Your task to perform on an android device: toggle javascript in the chrome app Image 0: 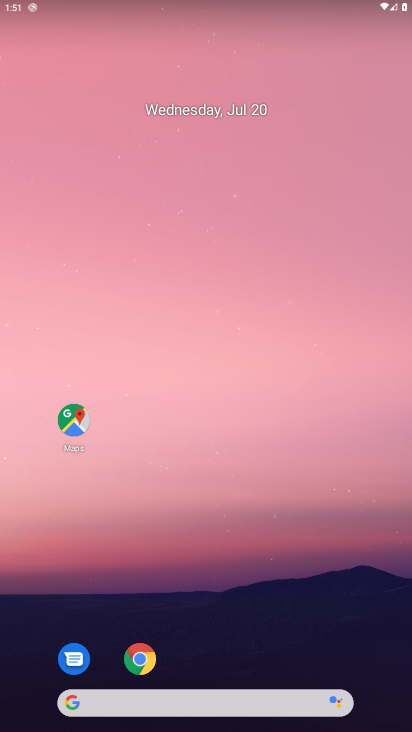
Step 0: click (147, 665)
Your task to perform on an android device: toggle javascript in the chrome app Image 1: 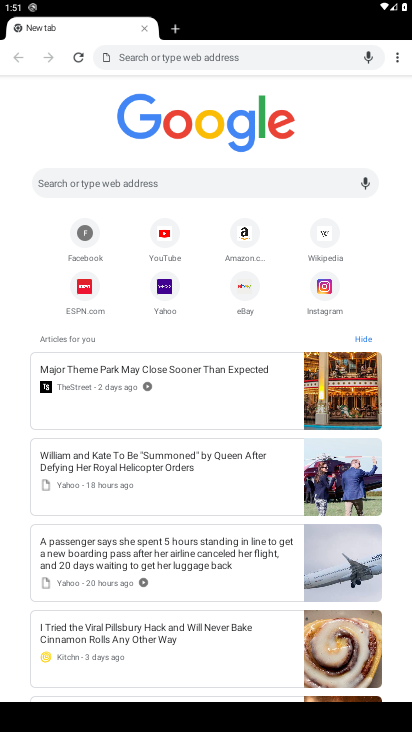
Step 1: click (399, 61)
Your task to perform on an android device: toggle javascript in the chrome app Image 2: 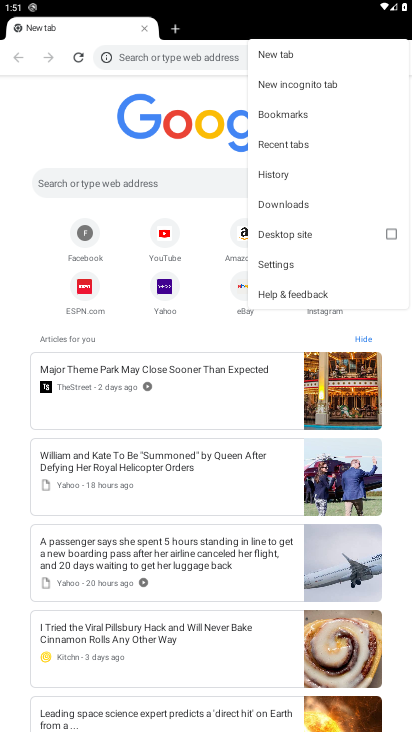
Step 2: click (274, 268)
Your task to perform on an android device: toggle javascript in the chrome app Image 3: 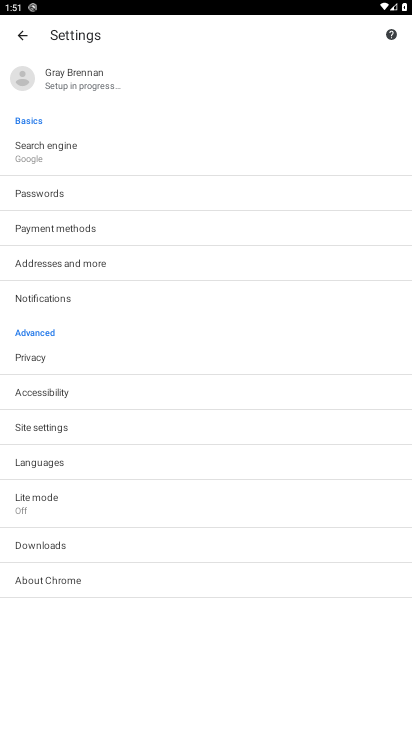
Step 3: click (42, 430)
Your task to perform on an android device: toggle javascript in the chrome app Image 4: 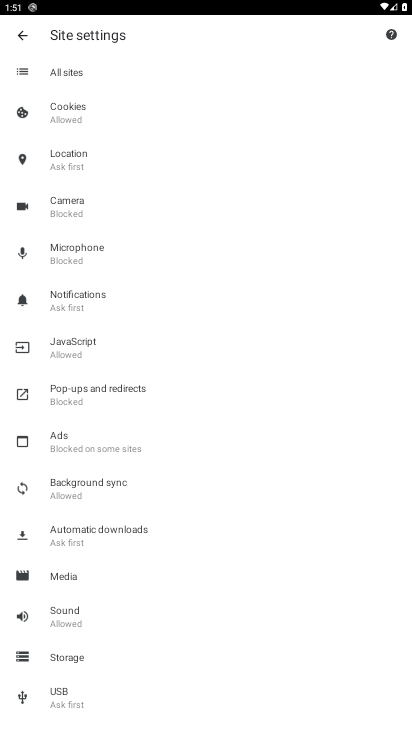
Step 4: click (77, 346)
Your task to perform on an android device: toggle javascript in the chrome app Image 5: 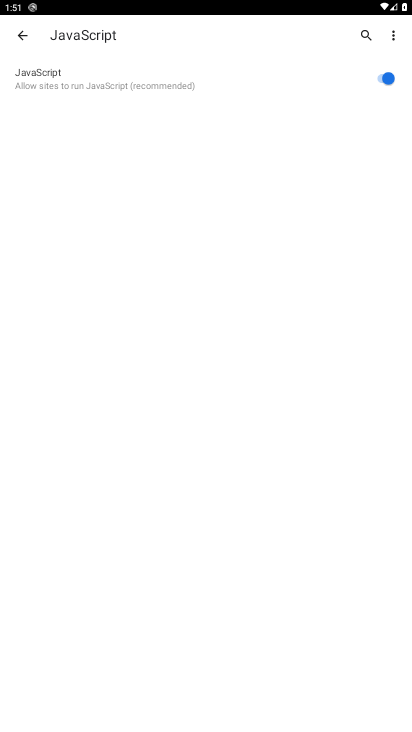
Step 5: task complete